Your task to perform on an android device: turn off notifications settings in the gmail app Image 0: 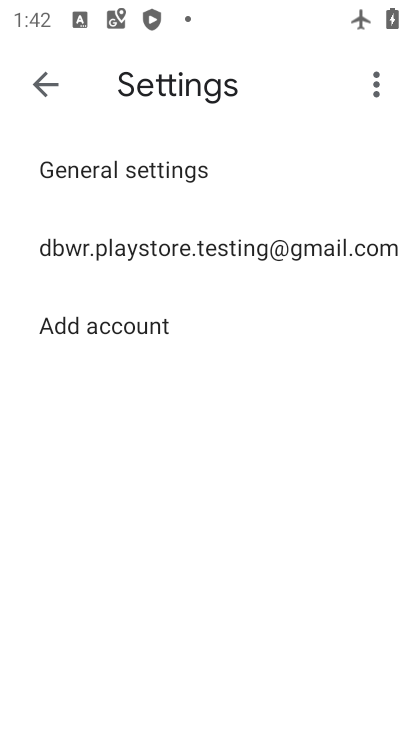
Step 0: click (146, 247)
Your task to perform on an android device: turn off notifications settings in the gmail app Image 1: 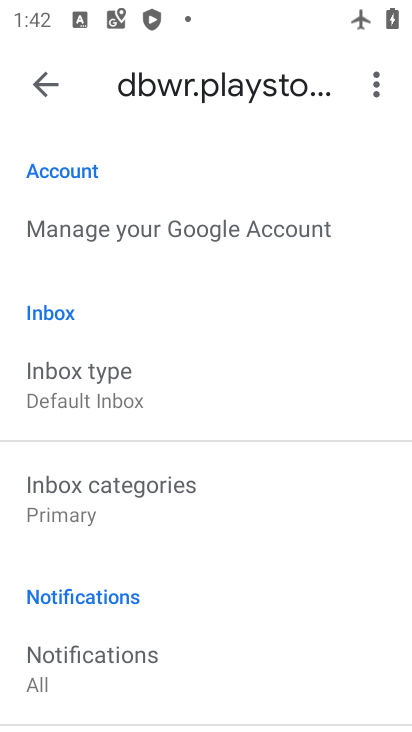
Step 1: drag from (316, 635) to (316, 182)
Your task to perform on an android device: turn off notifications settings in the gmail app Image 2: 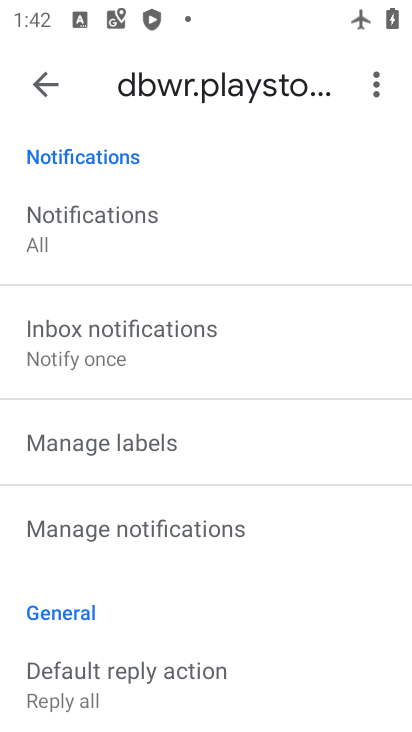
Step 2: click (85, 534)
Your task to perform on an android device: turn off notifications settings in the gmail app Image 3: 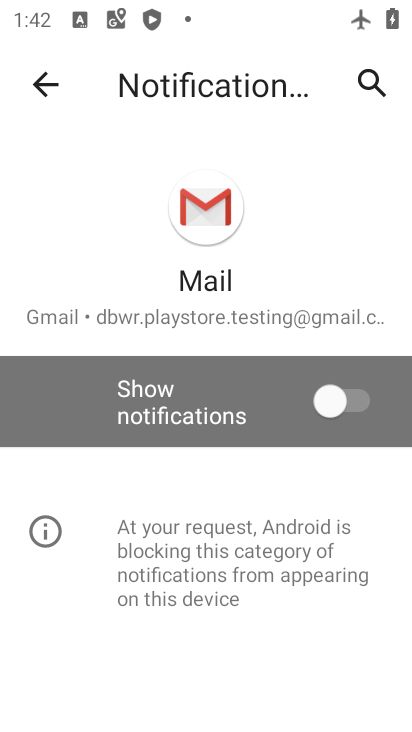
Step 3: task complete